Your task to perform on an android device: clear history in the chrome app Image 0: 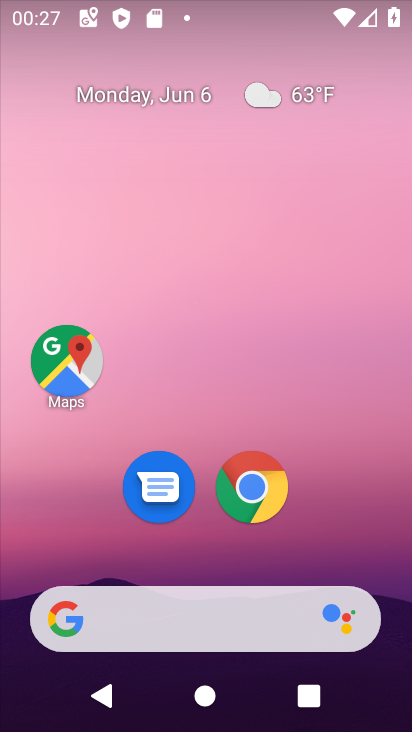
Step 0: click (260, 483)
Your task to perform on an android device: clear history in the chrome app Image 1: 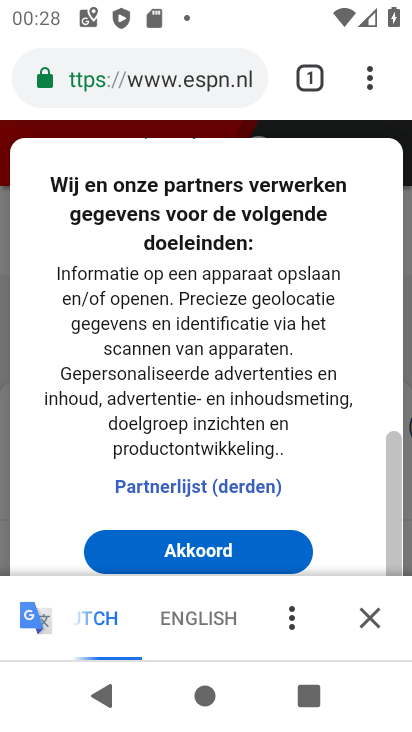
Step 1: click (368, 82)
Your task to perform on an android device: clear history in the chrome app Image 2: 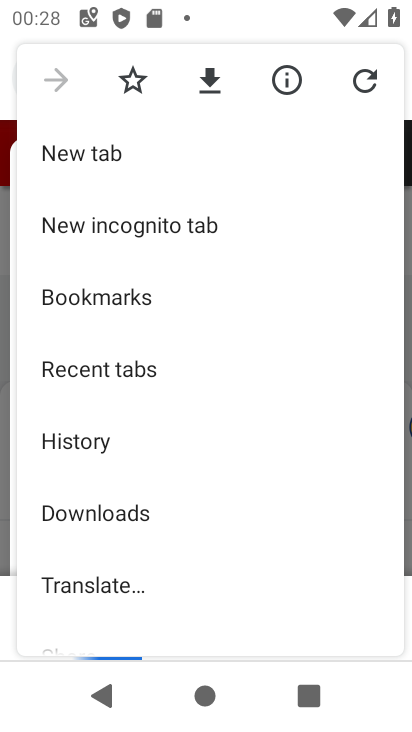
Step 2: click (84, 448)
Your task to perform on an android device: clear history in the chrome app Image 3: 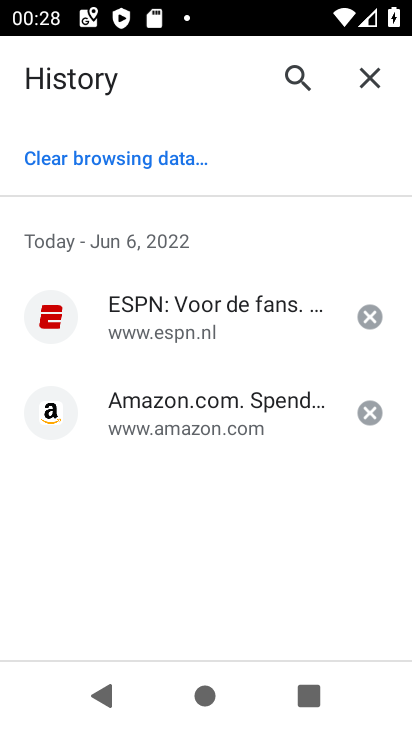
Step 3: click (109, 153)
Your task to perform on an android device: clear history in the chrome app Image 4: 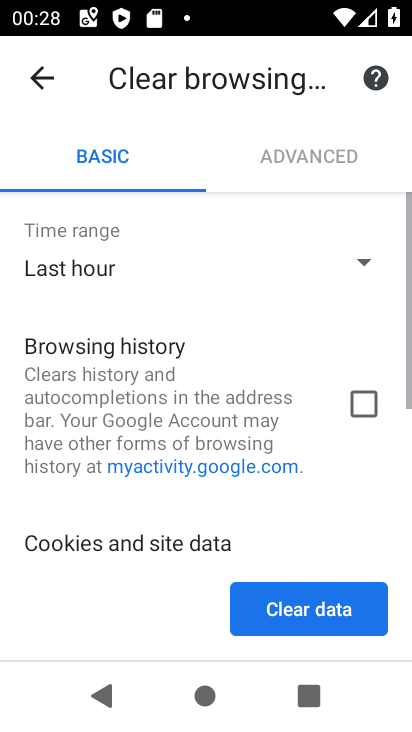
Step 4: click (363, 397)
Your task to perform on an android device: clear history in the chrome app Image 5: 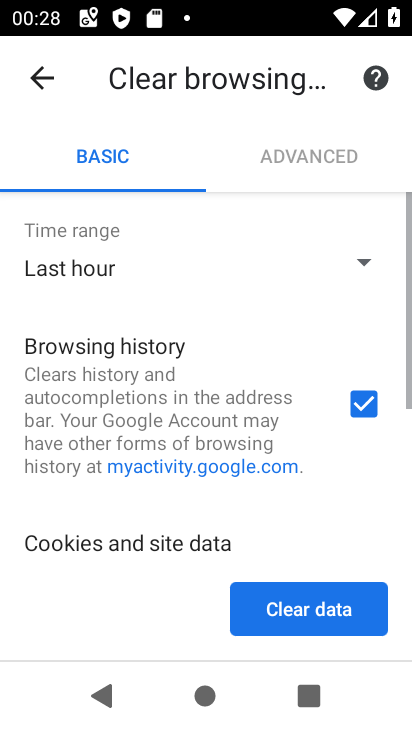
Step 5: drag from (301, 539) to (284, 172)
Your task to perform on an android device: clear history in the chrome app Image 6: 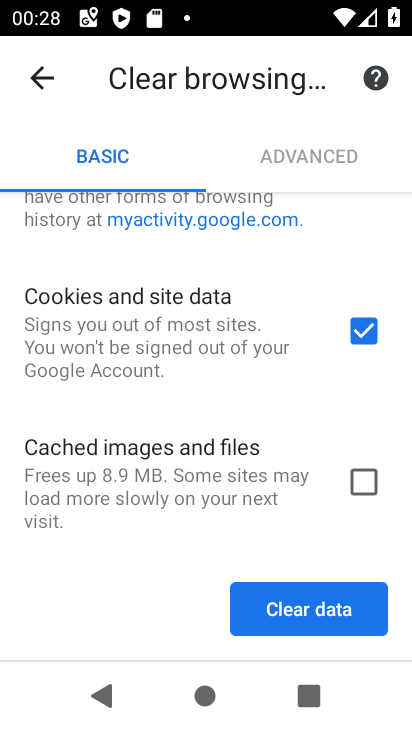
Step 6: click (363, 339)
Your task to perform on an android device: clear history in the chrome app Image 7: 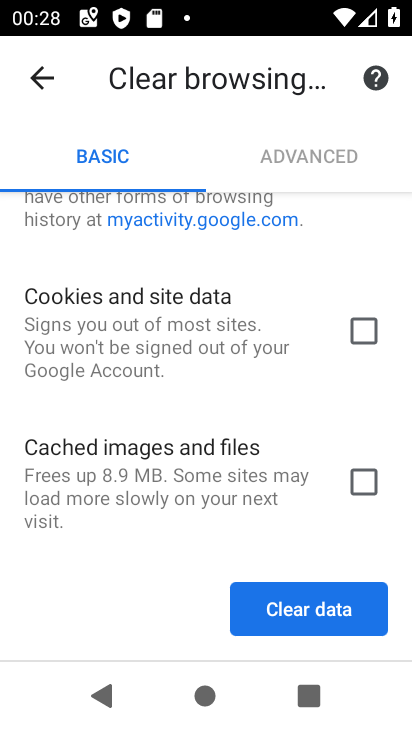
Step 7: click (308, 601)
Your task to perform on an android device: clear history in the chrome app Image 8: 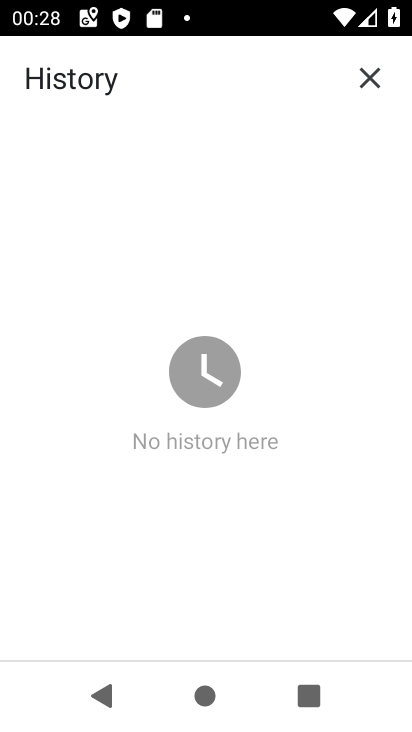
Step 8: task complete